Your task to perform on an android device: Open settings Image 0: 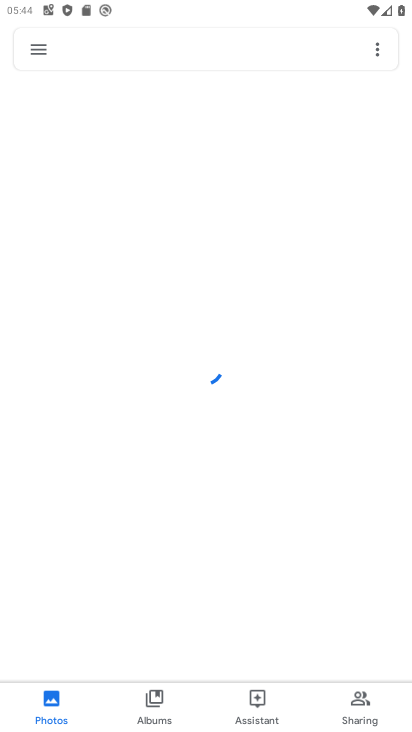
Step 0: press home button
Your task to perform on an android device: Open settings Image 1: 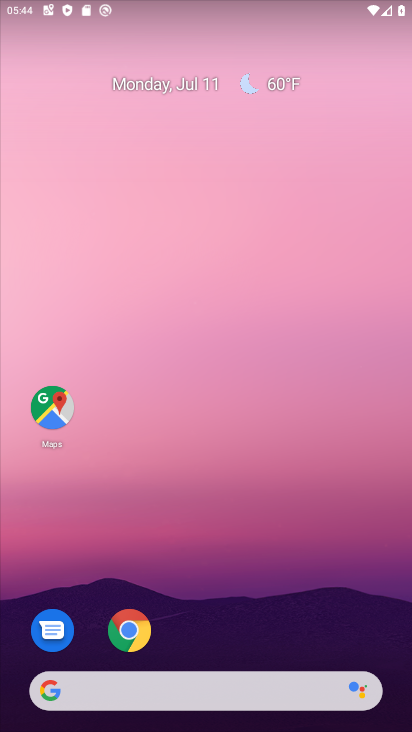
Step 1: drag from (191, 450) to (204, 19)
Your task to perform on an android device: Open settings Image 2: 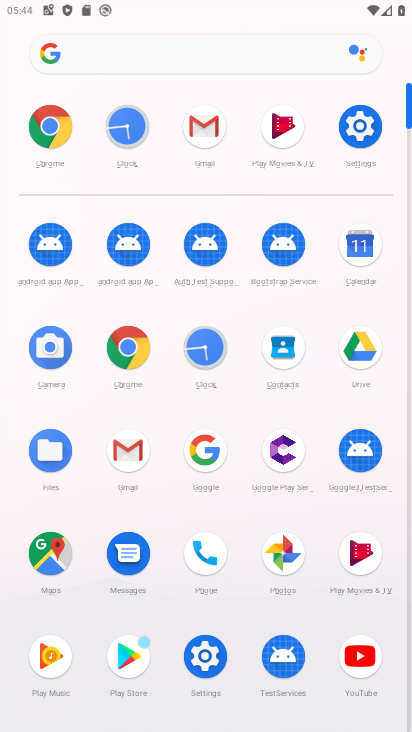
Step 2: click (355, 137)
Your task to perform on an android device: Open settings Image 3: 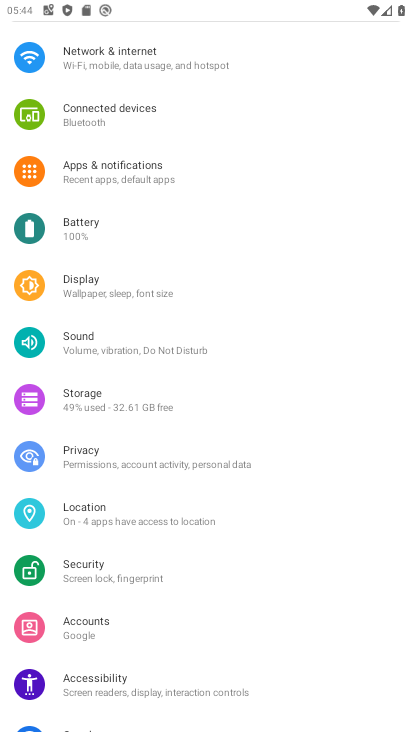
Step 3: task complete